Your task to perform on an android device: open wifi settings Image 0: 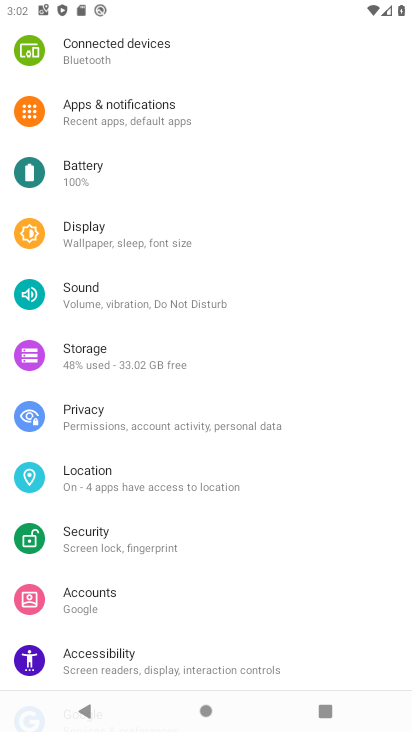
Step 0: drag from (224, 256) to (158, 716)
Your task to perform on an android device: open wifi settings Image 1: 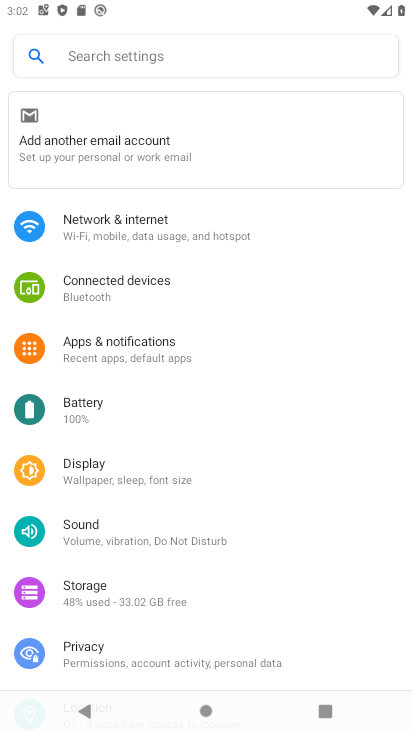
Step 1: click (187, 213)
Your task to perform on an android device: open wifi settings Image 2: 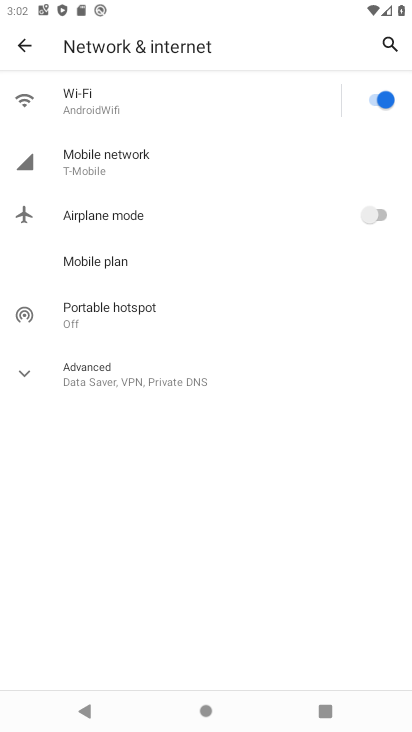
Step 2: click (390, 87)
Your task to perform on an android device: open wifi settings Image 3: 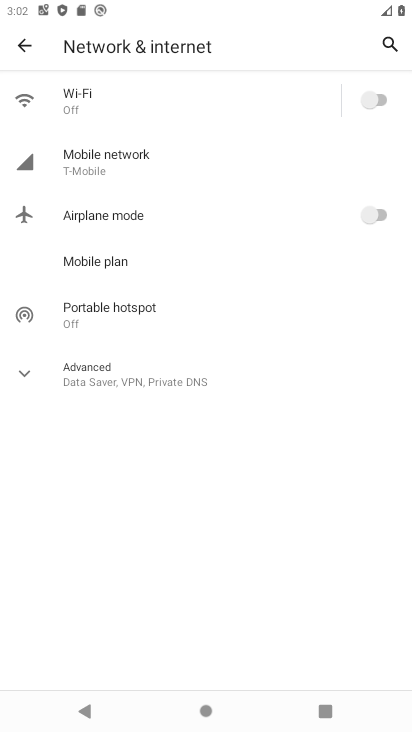
Step 3: task complete